Your task to perform on an android device: Set the phone to "Do not disturb". Image 0: 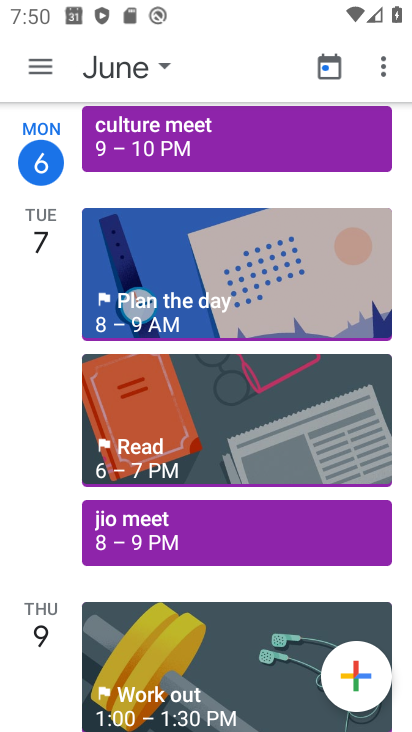
Step 0: press home button
Your task to perform on an android device: Set the phone to "Do not disturb". Image 1: 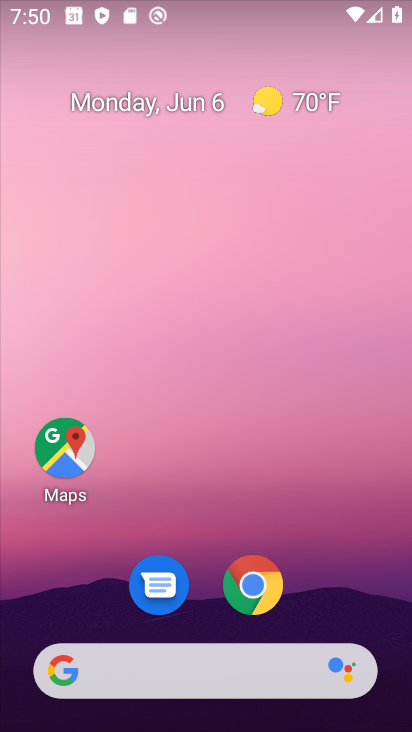
Step 1: drag from (253, 518) to (267, 8)
Your task to perform on an android device: Set the phone to "Do not disturb". Image 2: 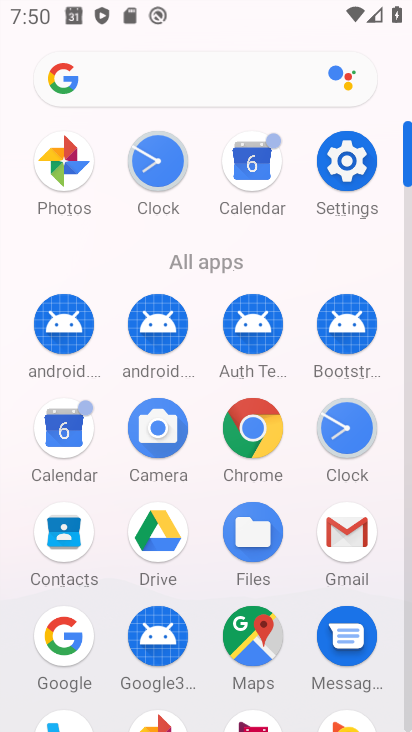
Step 2: click (343, 160)
Your task to perform on an android device: Set the phone to "Do not disturb". Image 3: 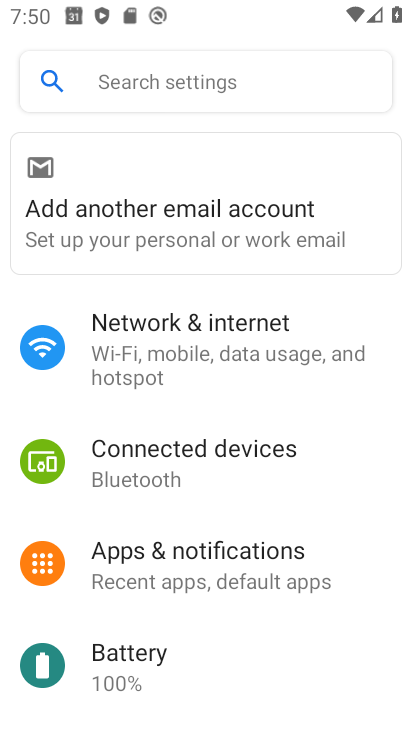
Step 3: drag from (249, 571) to (246, 263)
Your task to perform on an android device: Set the phone to "Do not disturb". Image 4: 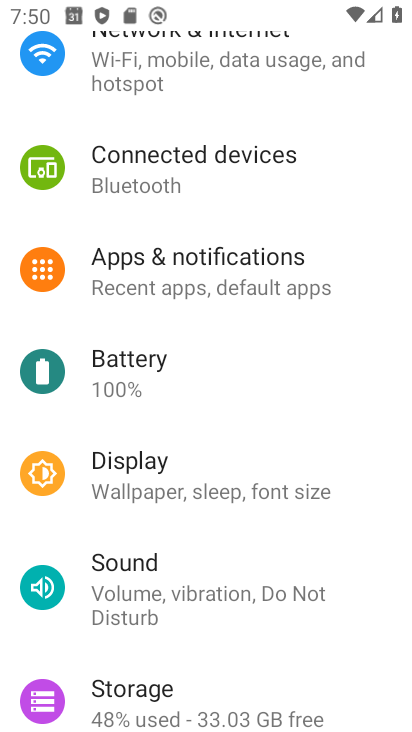
Step 4: click (248, 589)
Your task to perform on an android device: Set the phone to "Do not disturb". Image 5: 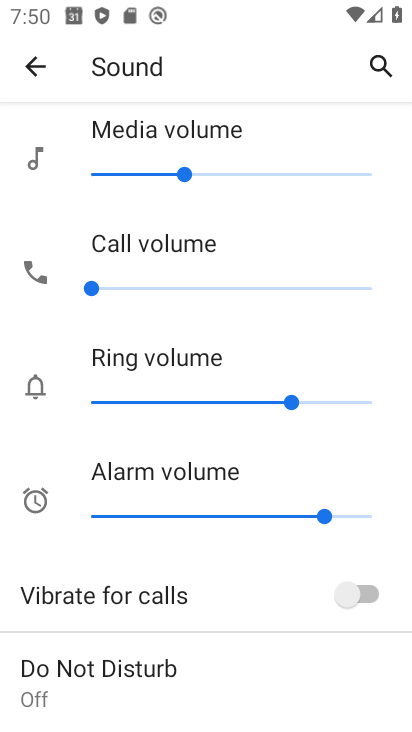
Step 5: click (170, 680)
Your task to perform on an android device: Set the phone to "Do not disturb". Image 6: 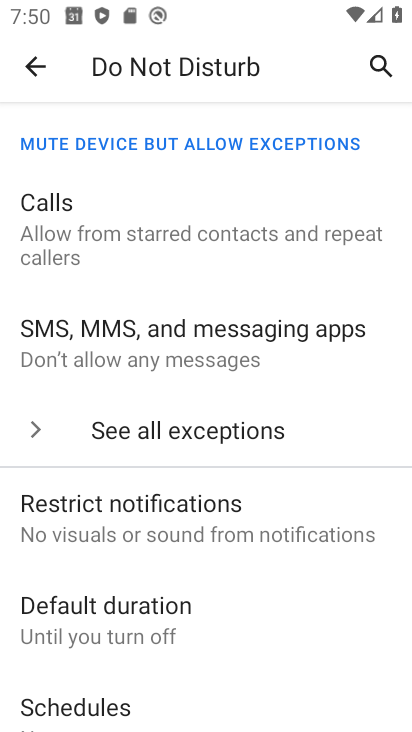
Step 6: drag from (238, 613) to (248, 442)
Your task to perform on an android device: Set the phone to "Do not disturb". Image 7: 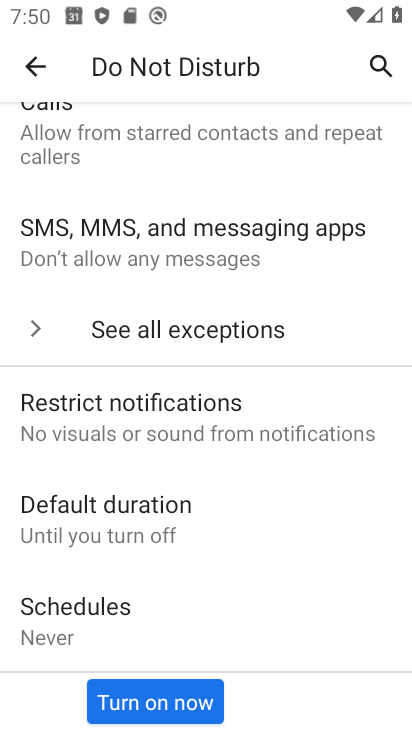
Step 7: click (195, 702)
Your task to perform on an android device: Set the phone to "Do not disturb". Image 8: 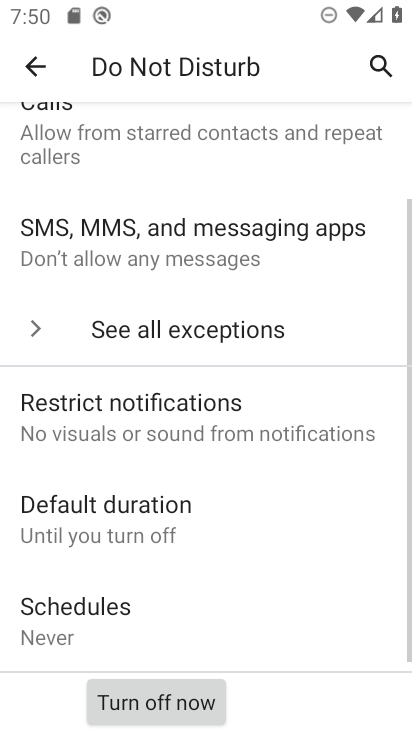
Step 8: click (29, 59)
Your task to perform on an android device: Set the phone to "Do not disturb". Image 9: 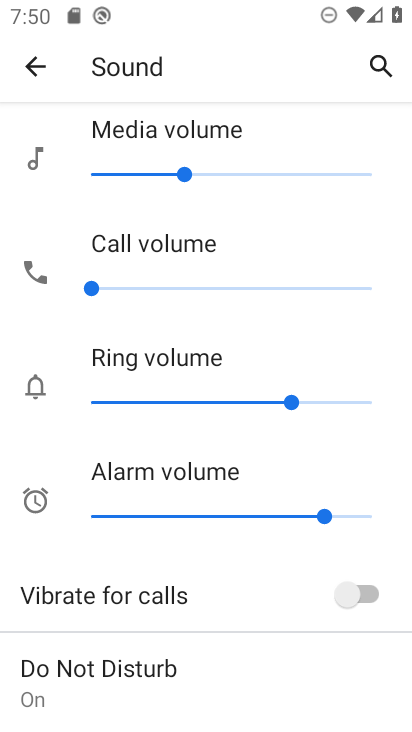
Step 9: task complete